Your task to perform on an android device: Open Reddit.com Image 0: 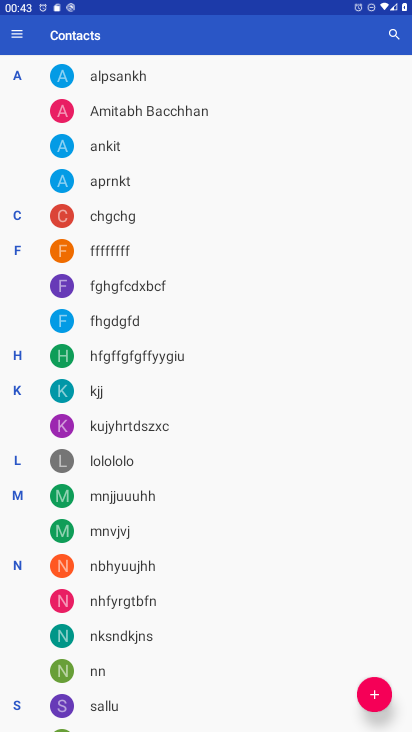
Step 0: press home button
Your task to perform on an android device: Open Reddit.com Image 1: 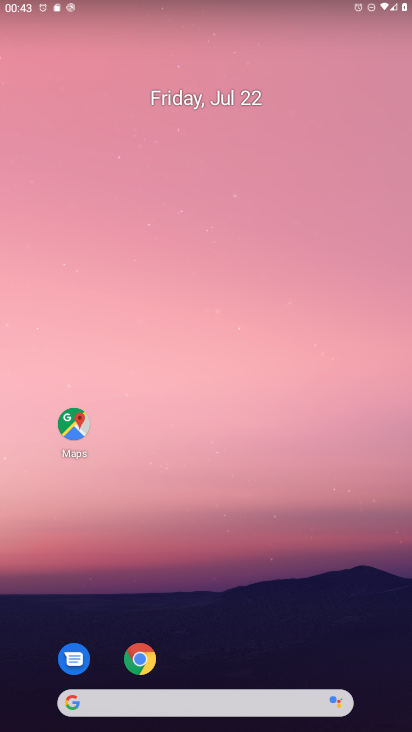
Step 1: click (140, 659)
Your task to perform on an android device: Open Reddit.com Image 2: 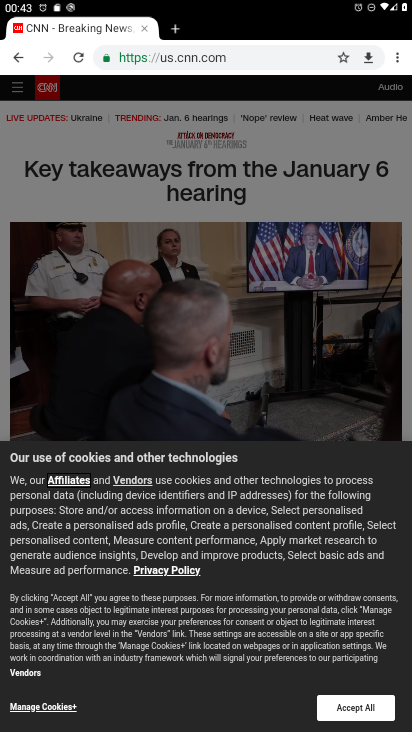
Step 2: click (265, 64)
Your task to perform on an android device: Open Reddit.com Image 3: 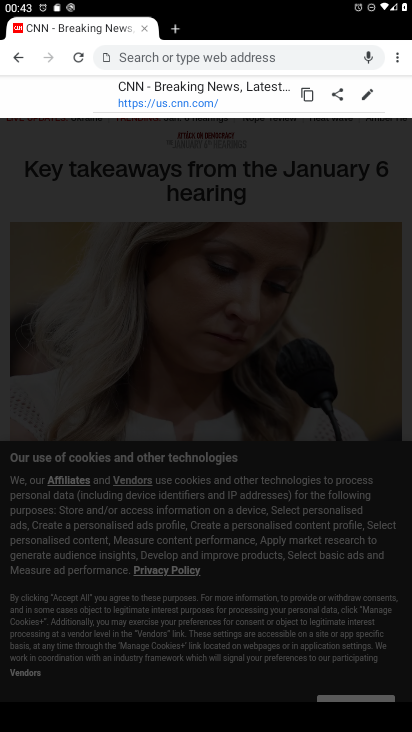
Step 3: type "Reddit.com"
Your task to perform on an android device: Open Reddit.com Image 4: 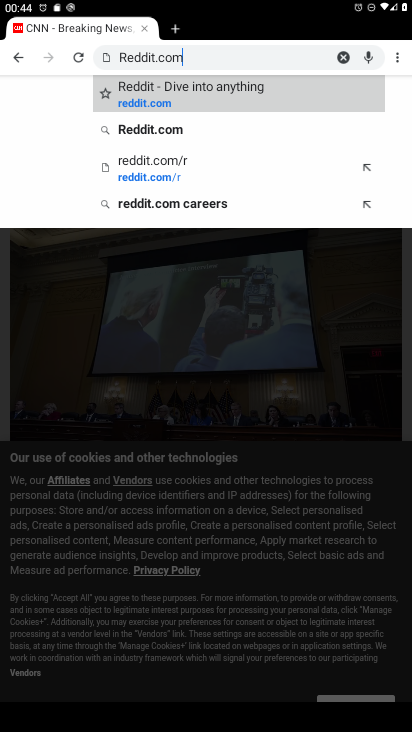
Step 4: click (167, 131)
Your task to perform on an android device: Open Reddit.com Image 5: 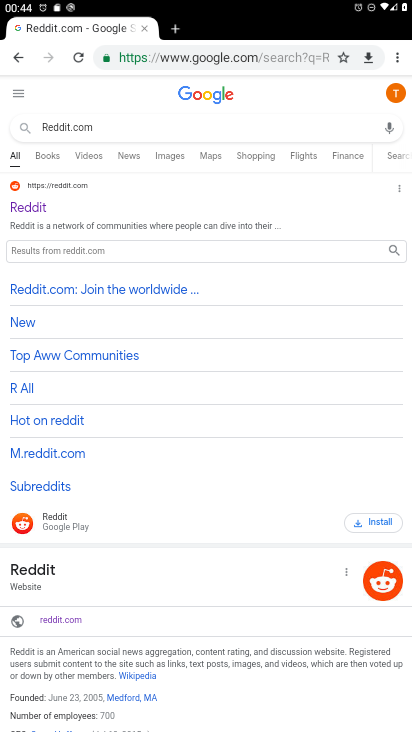
Step 5: click (22, 205)
Your task to perform on an android device: Open Reddit.com Image 6: 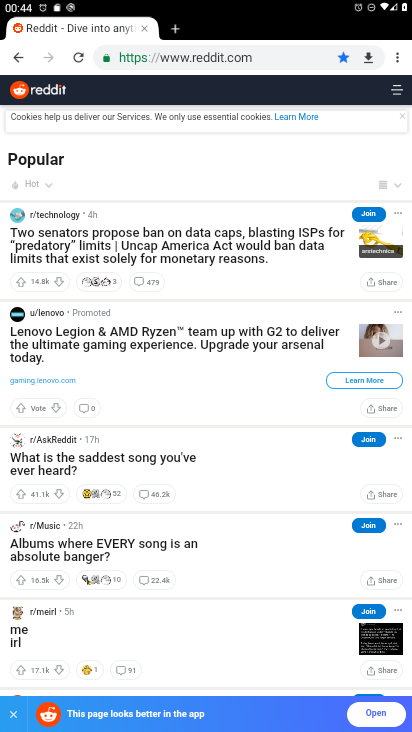
Step 6: task complete